Your task to perform on an android device: View the shopping cart on bestbuy. Image 0: 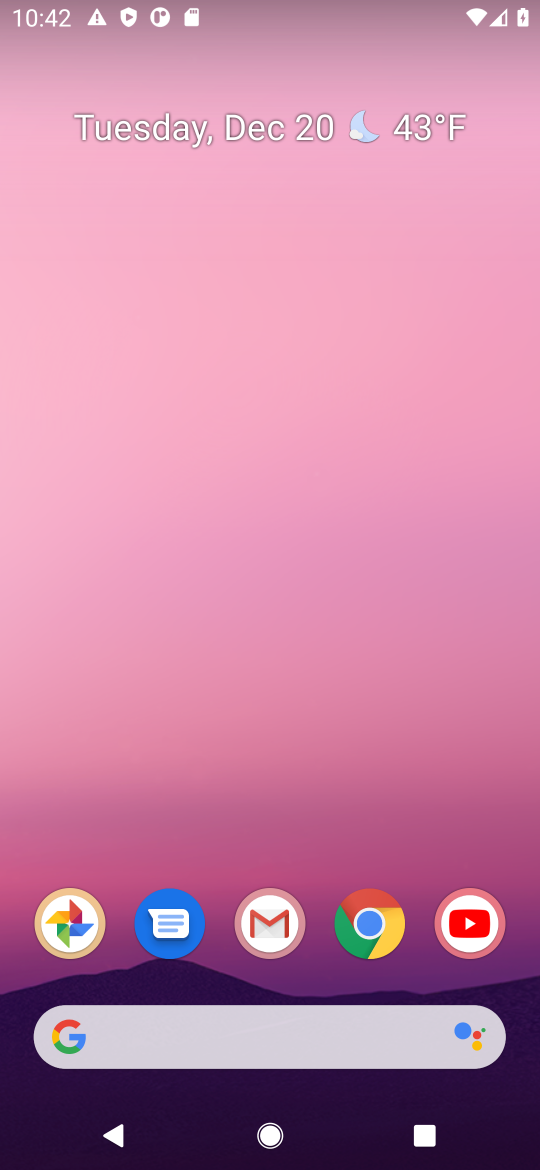
Step 0: click (358, 951)
Your task to perform on an android device: View the shopping cart on bestbuy. Image 1: 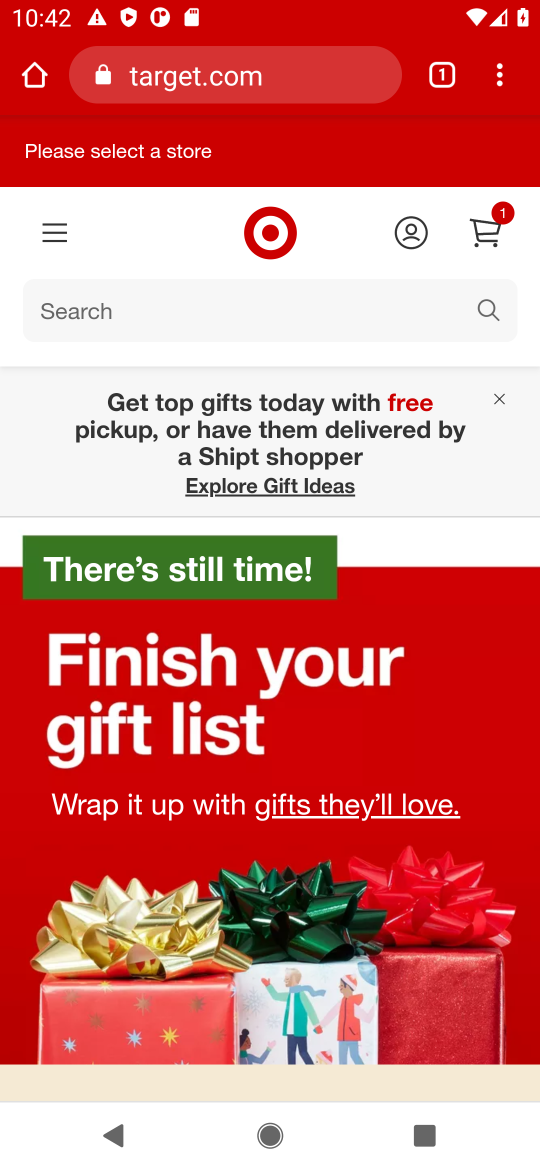
Step 1: click (317, 87)
Your task to perform on an android device: View the shopping cart on bestbuy. Image 2: 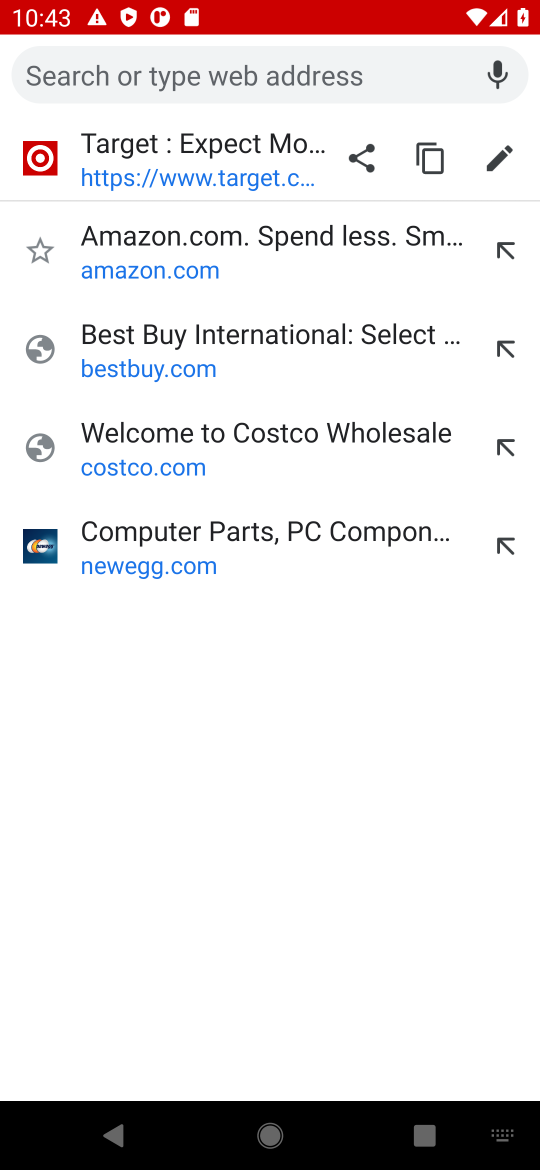
Step 2: click (265, 142)
Your task to perform on an android device: View the shopping cart on bestbuy. Image 3: 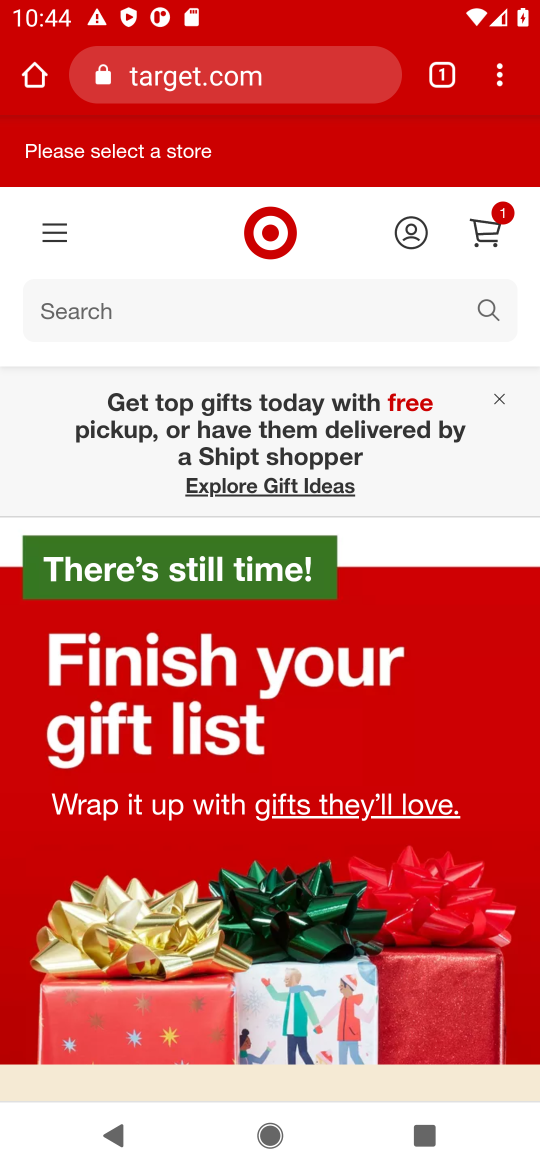
Step 3: task complete